Your task to perform on an android device: Open Android settings Image 0: 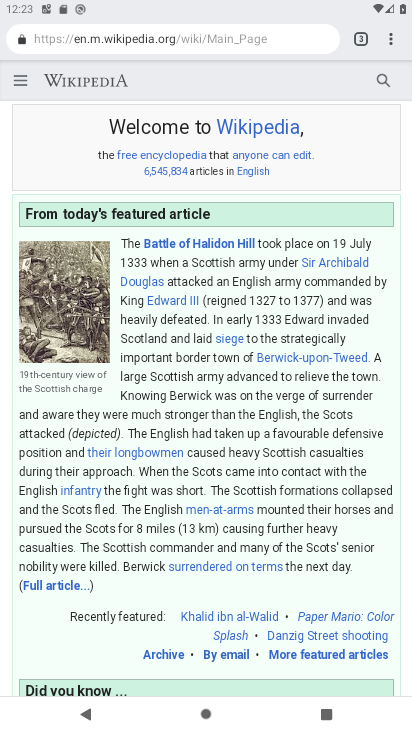
Step 0: press home button
Your task to perform on an android device: Open Android settings Image 1: 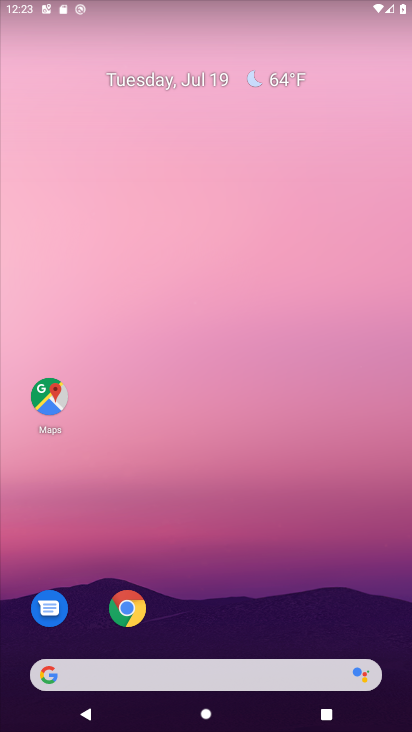
Step 1: drag from (215, 591) to (410, 486)
Your task to perform on an android device: Open Android settings Image 2: 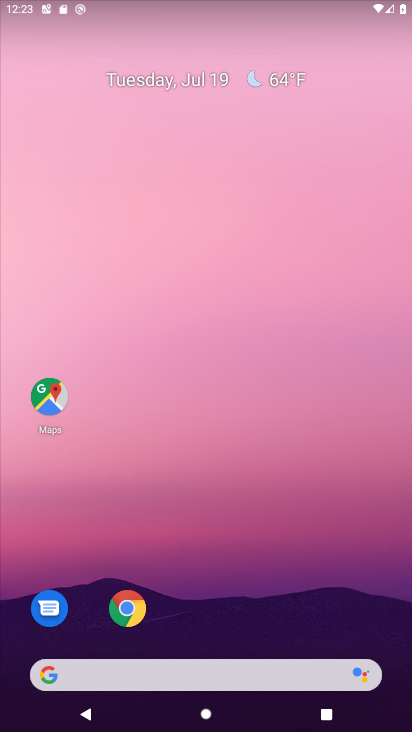
Step 2: drag from (267, 576) to (371, 7)
Your task to perform on an android device: Open Android settings Image 3: 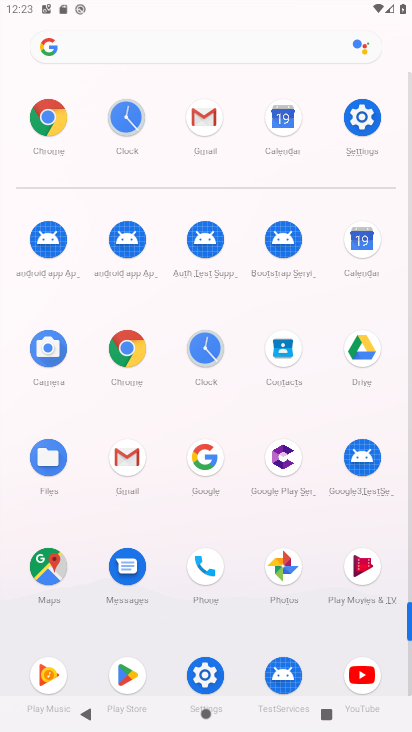
Step 3: click (369, 127)
Your task to perform on an android device: Open Android settings Image 4: 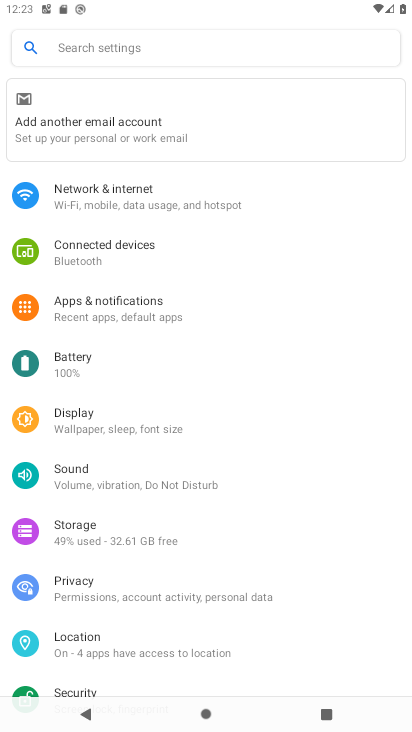
Step 4: drag from (194, 536) to (380, 5)
Your task to perform on an android device: Open Android settings Image 5: 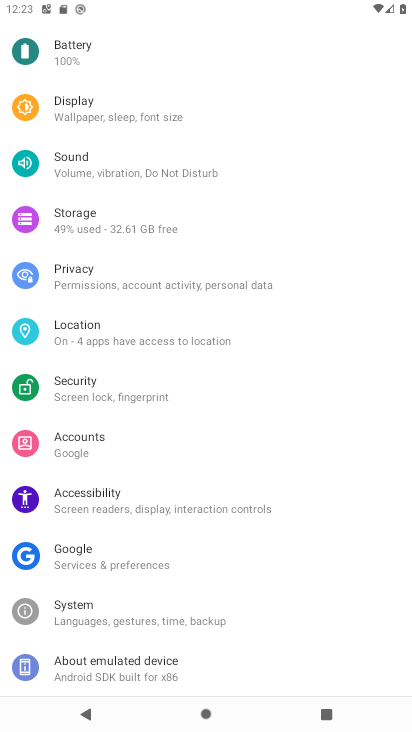
Step 5: click (189, 667)
Your task to perform on an android device: Open Android settings Image 6: 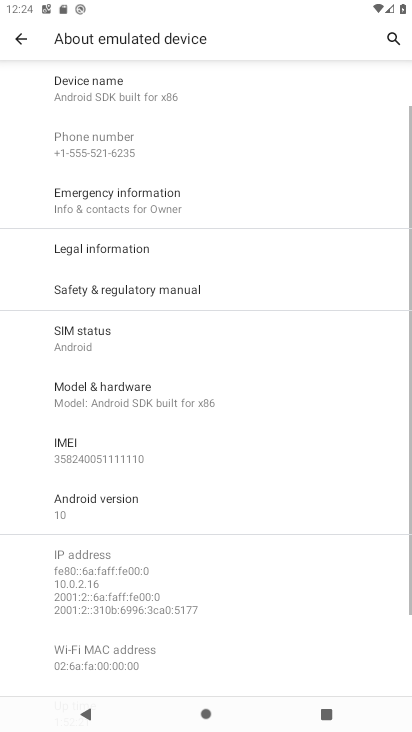
Step 6: task complete